Your task to perform on an android device: open chrome privacy settings Image 0: 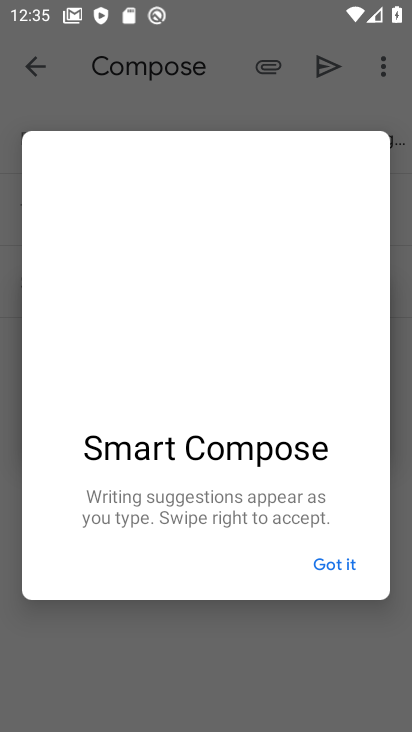
Step 0: press home button
Your task to perform on an android device: open chrome privacy settings Image 1: 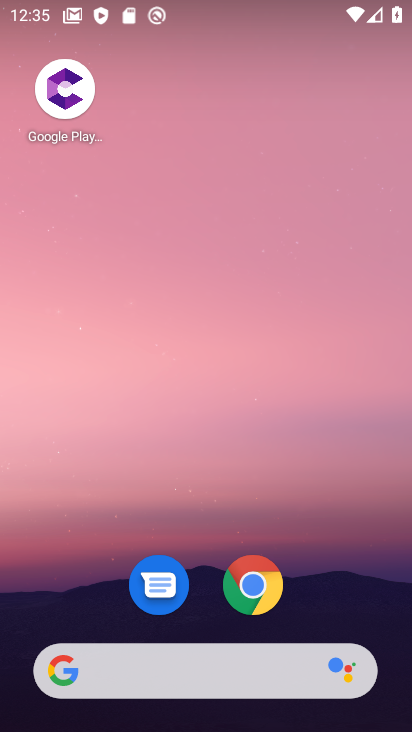
Step 1: click (260, 585)
Your task to perform on an android device: open chrome privacy settings Image 2: 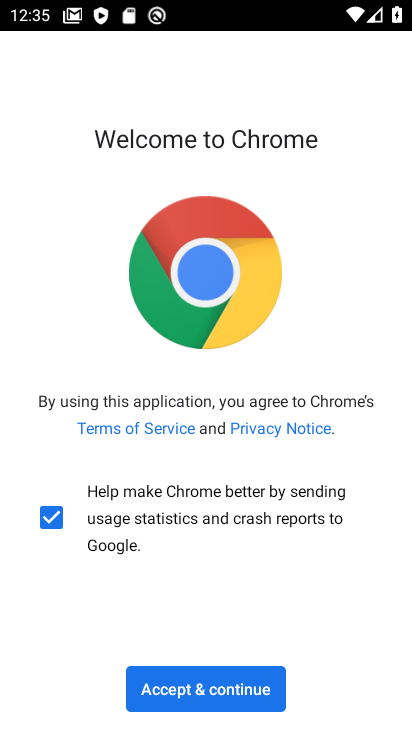
Step 2: click (221, 688)
Your task to perform on an android device: open chrome privacy settings Image 3: 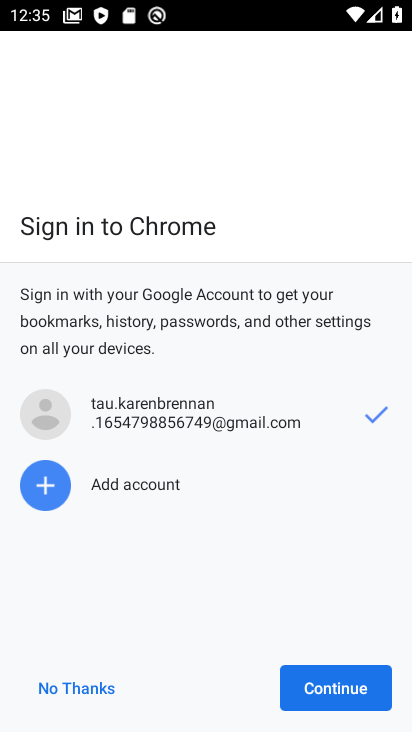
Step 3: click (312, 695)
Your task to perform on an android device: open chrome privacy settings Image 4: 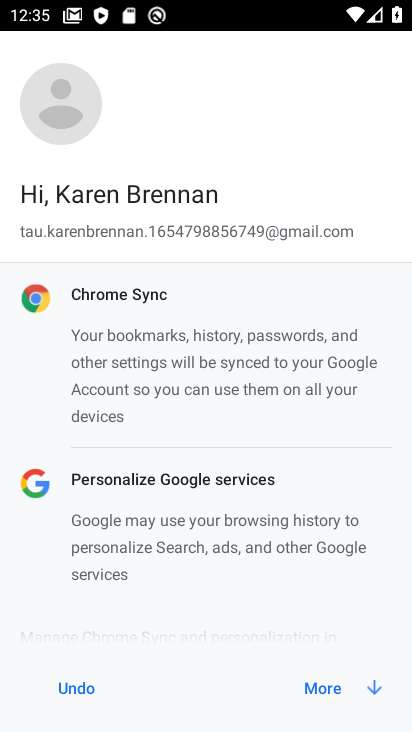
Step 4: click (313, 695)
Your task to perform on an android device: open chrome privacy settings Image 5: 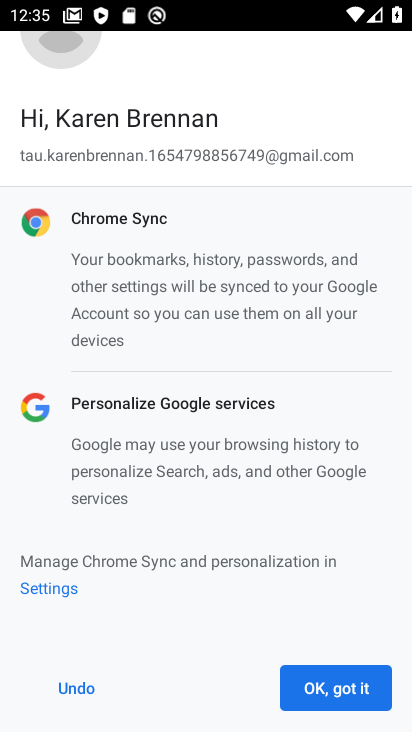
Step 5: click (313, 695)
Your task to perform on an android device: open chrome privacy settings Image 6: 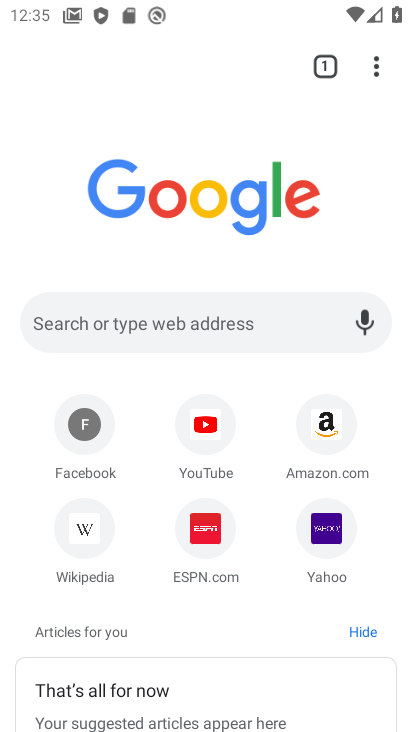
Step 6: drag from (376, 63) to (212, 542)
Your task to perform on an android device: open chrome privacy settings Image 7: 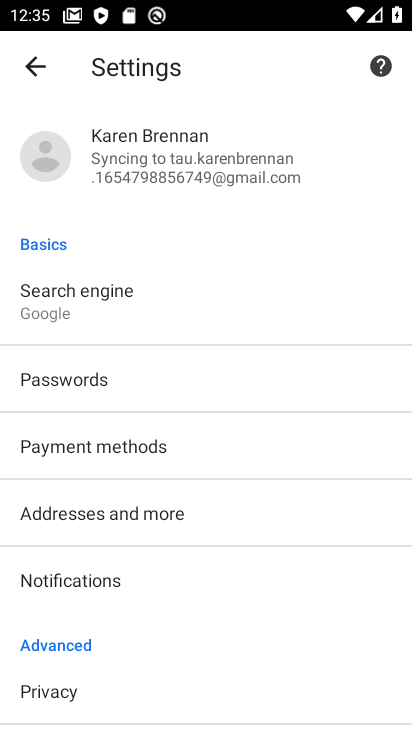
Step 7: click (45, 691)
Your task to perform on an android device: open chrome privacy settings Image 8: 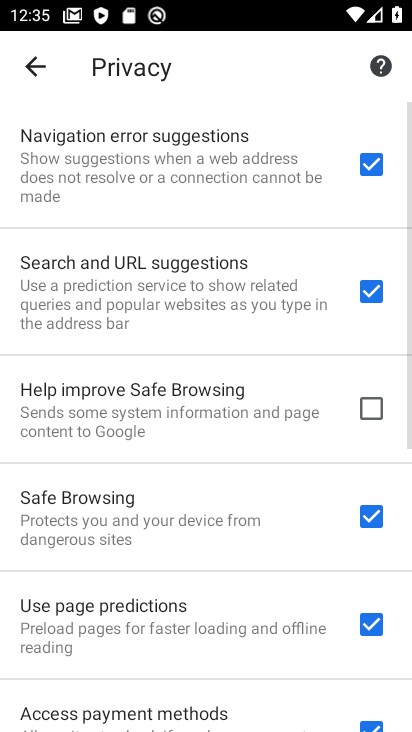
Step 8: task complete